Your task to perform on an android device: add a label to a message in the gmail app Image 0: 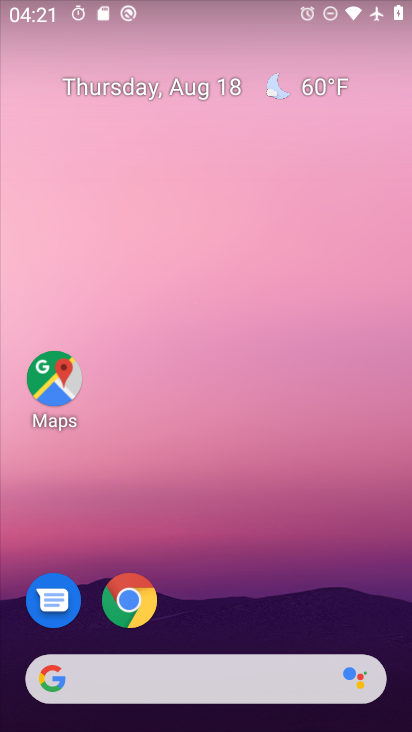
Step 0: drag from (245, 632) to (283, 40)
Your task to perform on an android device: add a label to a message in the gmail app Image 1: 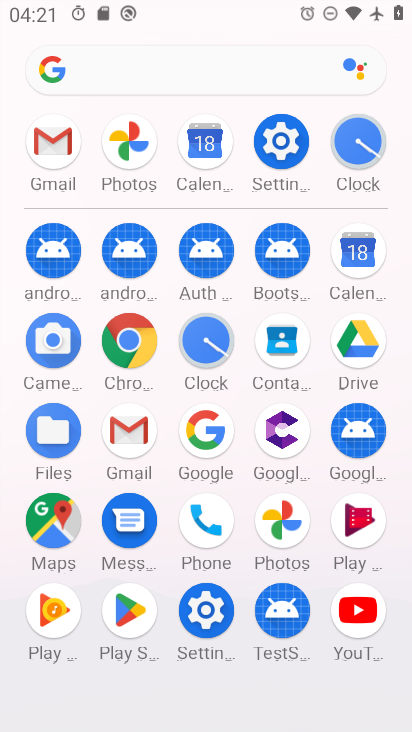
Step 1: click (44, 161)
Your task to perform on an android device: add a label to a message in the gmail app Image 2: 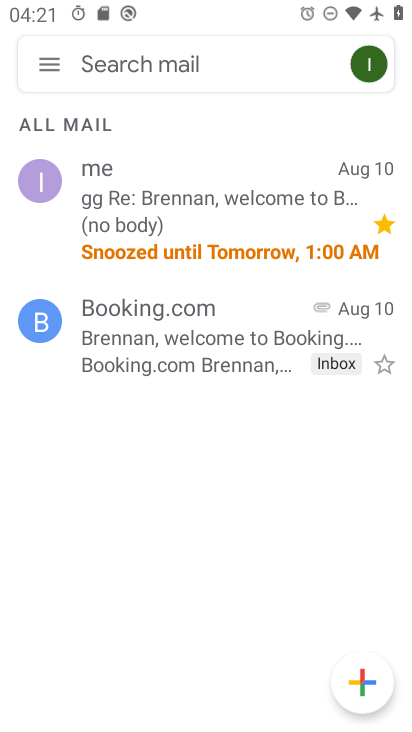
Step 2: click (196, 213)
Your task to perform on an android device: add a label to a message in the gmail app Image 3: 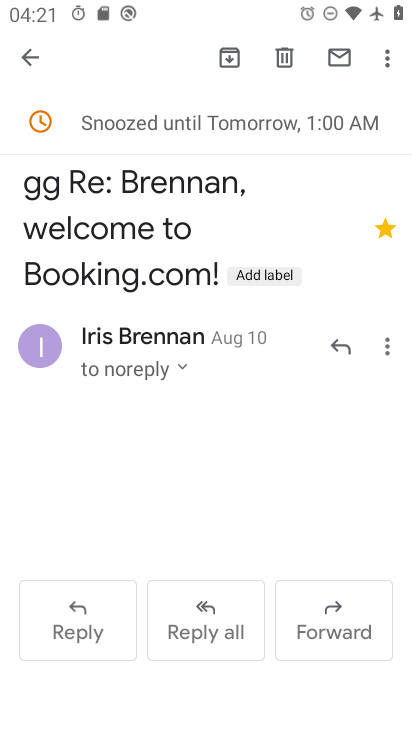
Step 3: click (385, 62)
Your task to perform on an android device: add a label to a message in the gmail app Image 4: 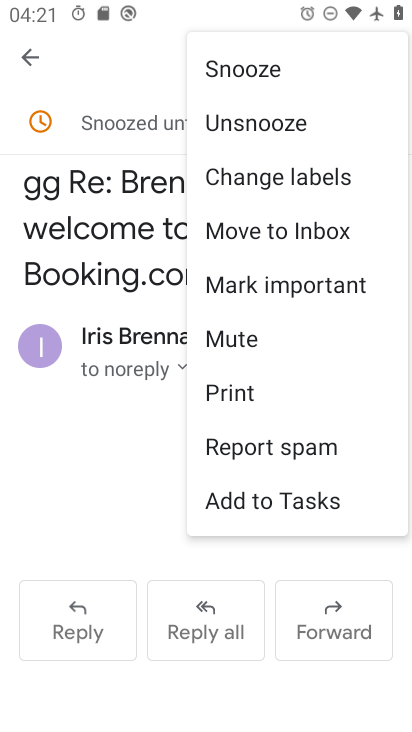
Step 4: click (264, 182)
Your task to perform on an android device: add a label to a message in the gmail app Image 5: 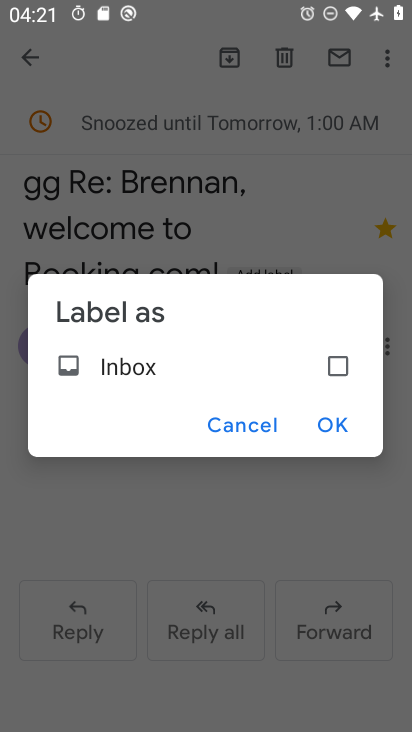
Step 5: click (340, 359)
Your task to perform on an android device: add a label to a message in the gmail app Image 6: 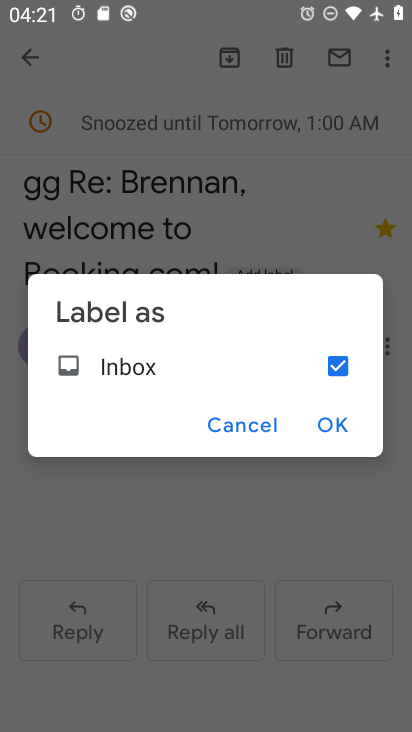
Step 6: click (338, 429)
Your task to perform on an android device: add a label to a message in the gmail app Image 7: 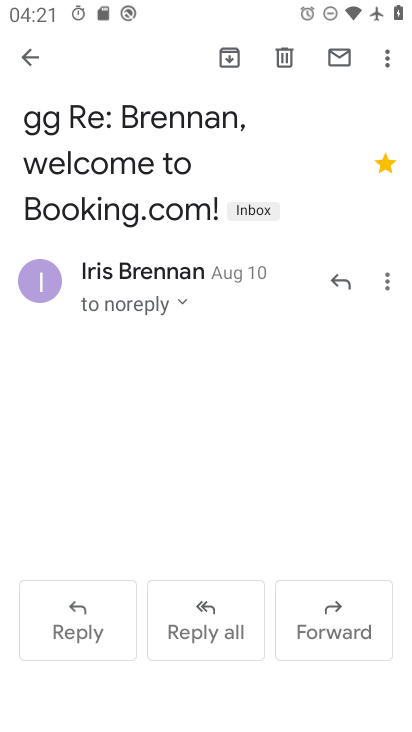
Step 7: task complete